Your task to perform on an android device: add a contact Image 0: 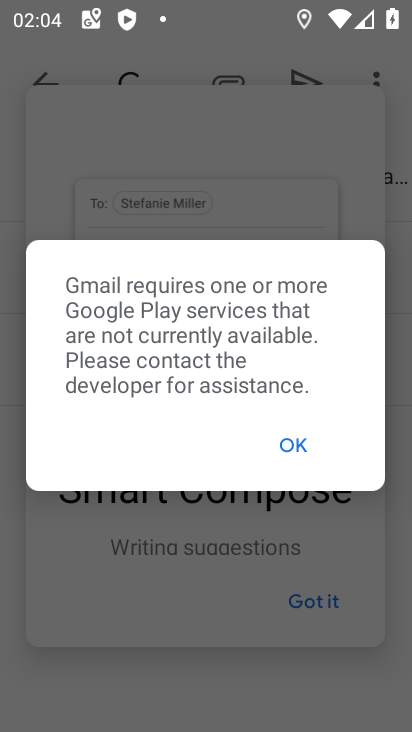
Step 0: press home button
Your task to perform on an android device: add a contact Image 1: 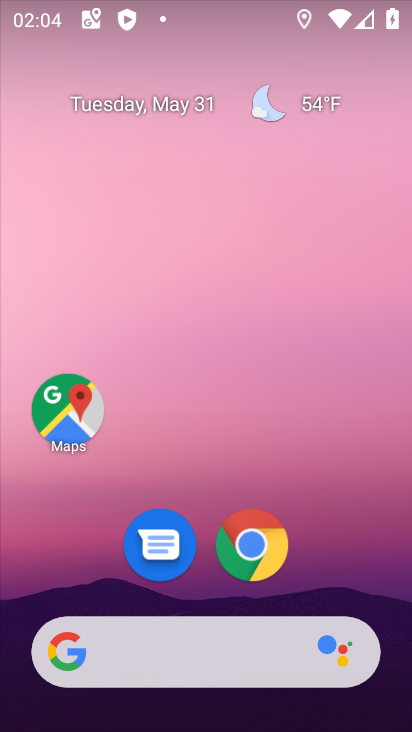
Step 1: drag from (360, 588) to (347, 7)
Your task to perform on an android device: add a contact Image 2: 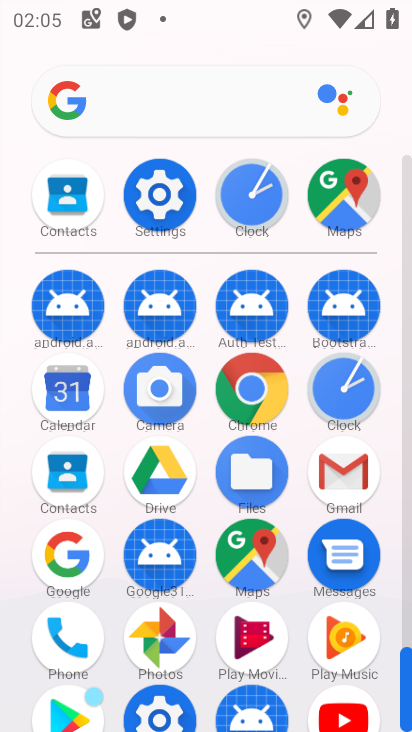
Step 2: drag from (213, 200) to (222, 81)
Your task to perform on an android device: add a contact Image 3: 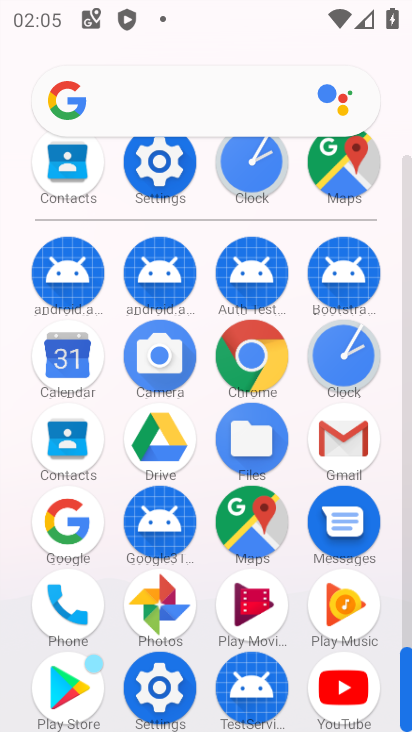
Step 3: click (78, 449)
Your task to perform on an android device: add a contact Image 4: 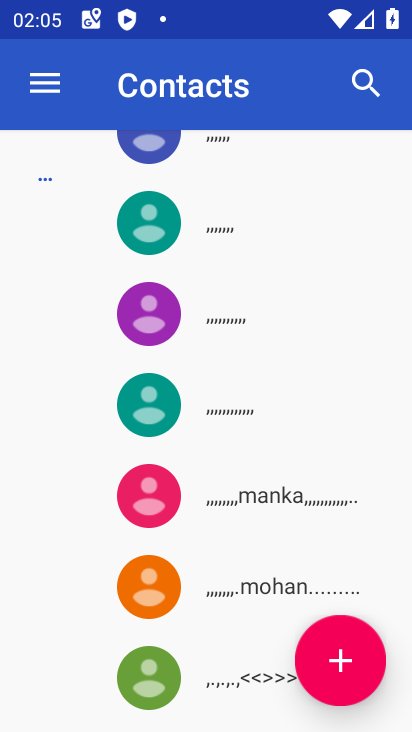
Step 4: click (350, 681)
Your task to perform on an android device: add a contact Image 5: 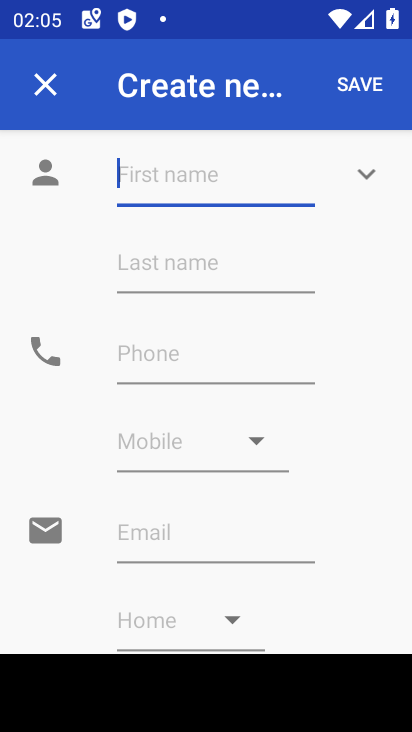
Step 5: type "gtgtt"
Your task to perform on an android device: add a contact Image 6: 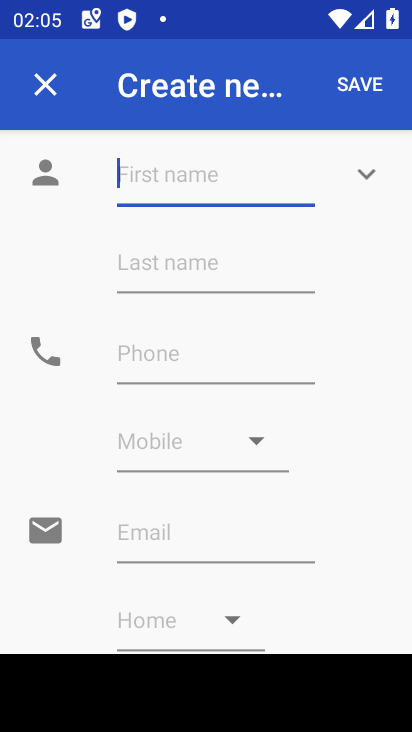
Step 6: click (153, 351)
Your task to perform on an android device: add a contact Image 7: 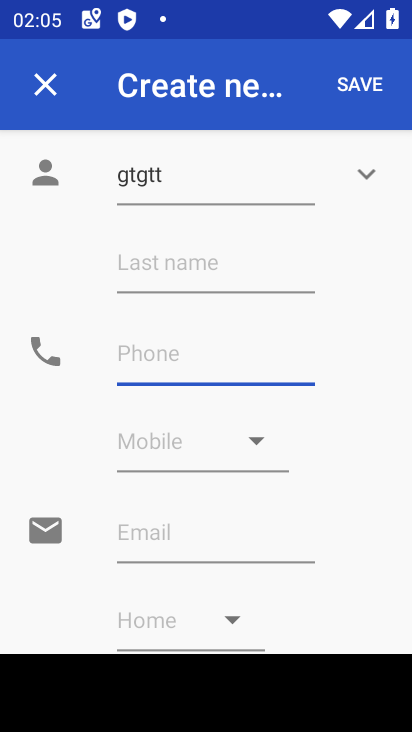
Step 7: type "5656565656"
Your task to perform on an android device: add a contact Image 8: 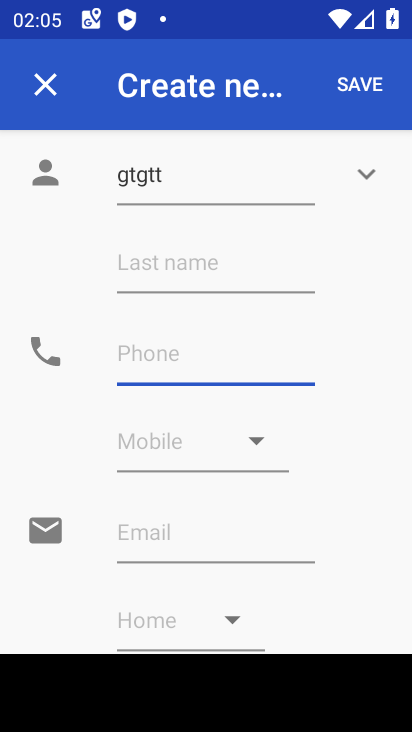
Step 8: click (385, 84)
Your task to perform on an android device: add a contact Image 9: 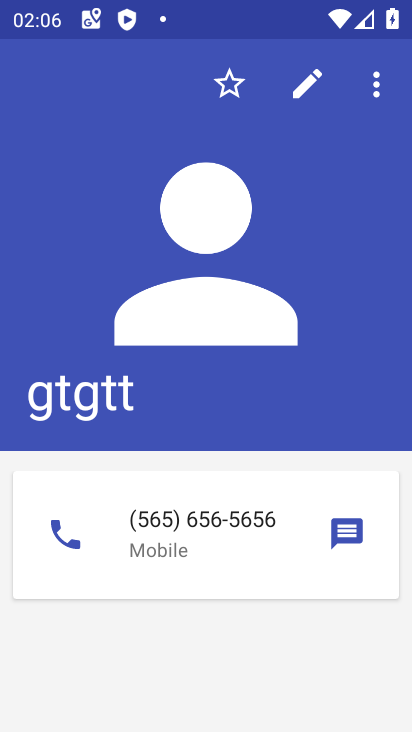
Step 9: task complete